Your task to perform on an android device: find which apps use the phone's location Image 0: 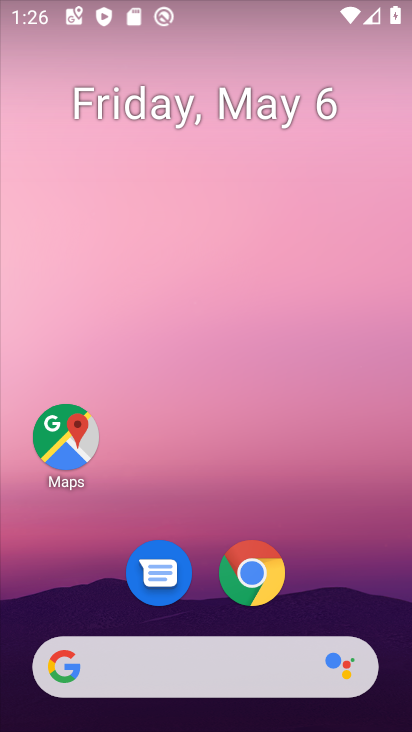
Step 0: drag from (215, 581) to (253, 66)
Your task to perform on an android device: find which apps use the phone's location Image 1: 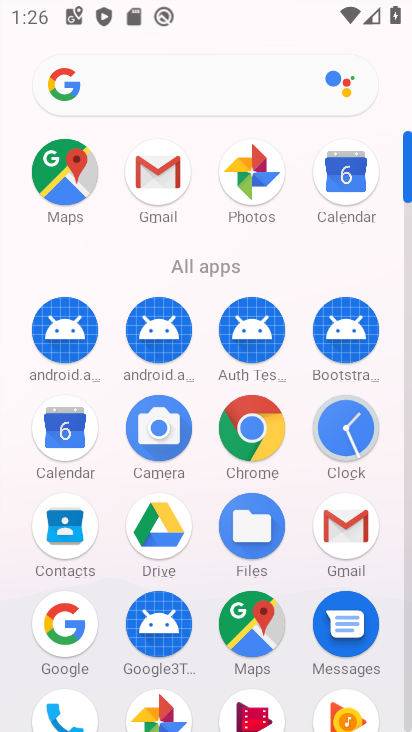
Step 1: drag from (207, 563) to (253, 129)
Your task to perform on an android device: find which apps use the phone's location Image 2: 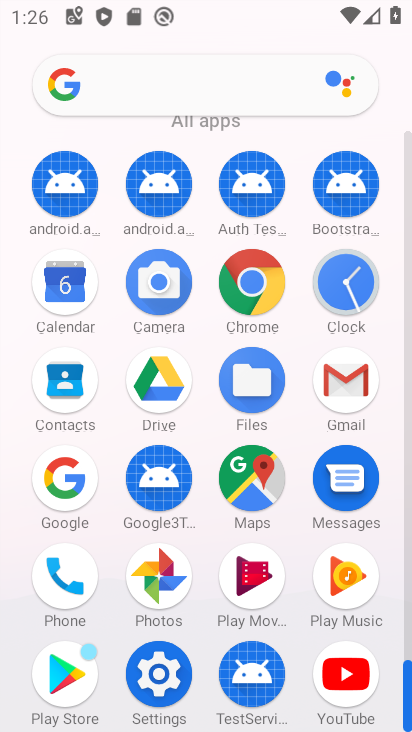
Step 2: click (181, 661)
Your task to perform on an android device: find which apps use the phone's location Image 3: 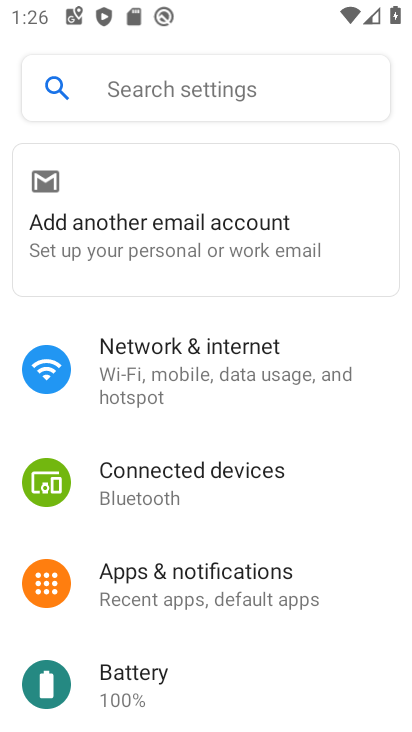
Step 3: drag from (188, 634) to (247, 235)
Your task to perform on an android device: find which apps use the phone's location Image 4: 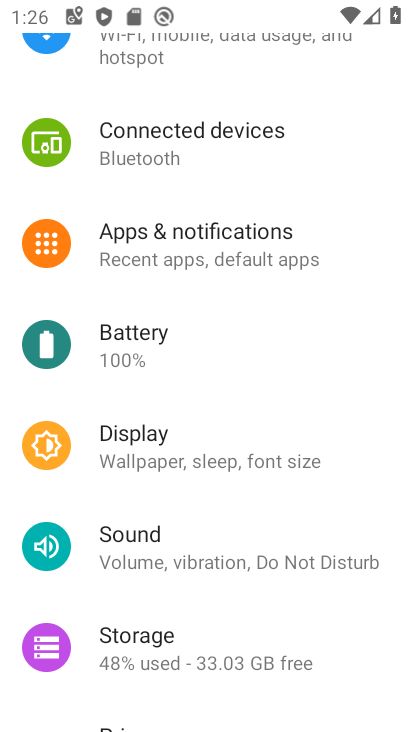
Step 4: drag from (188, 567) to (255, 118)
Your task to perform on an android device: find which apps use the phone's location Image 5: 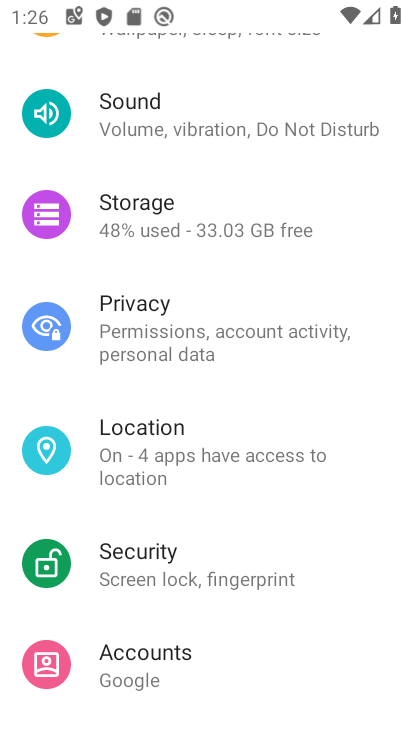
Step 5: click (182, 435)
Your task to perform on an android device: find which apps use the phone's location Image 6: 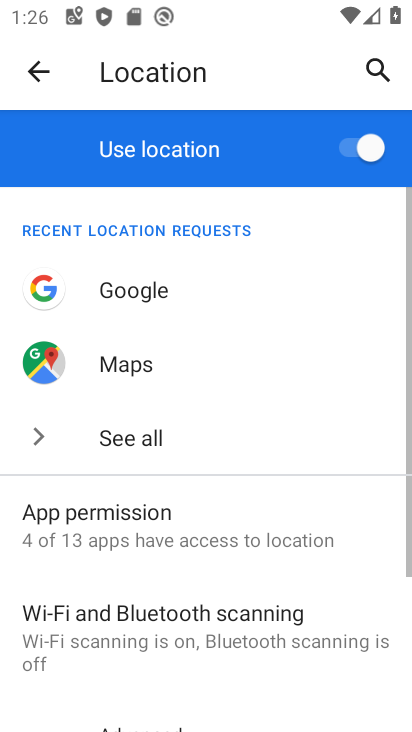
Step 6: click (122, 522)
Your task to perform on an android device: find which apps use the phone's location Image 7: 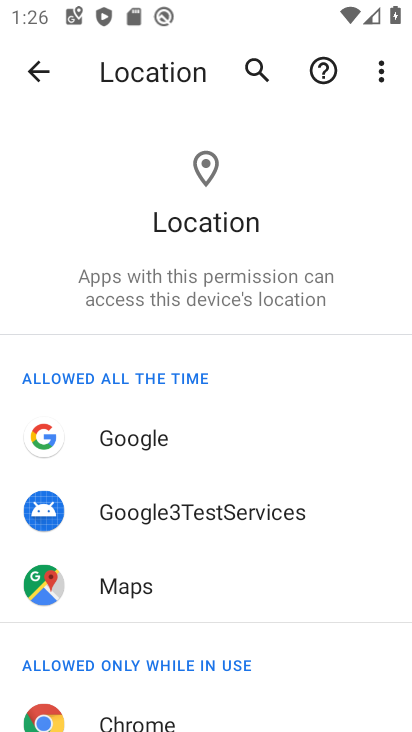
Step 7: task complete